Your task to perform on an android device: Open the stopwatch Image 0: 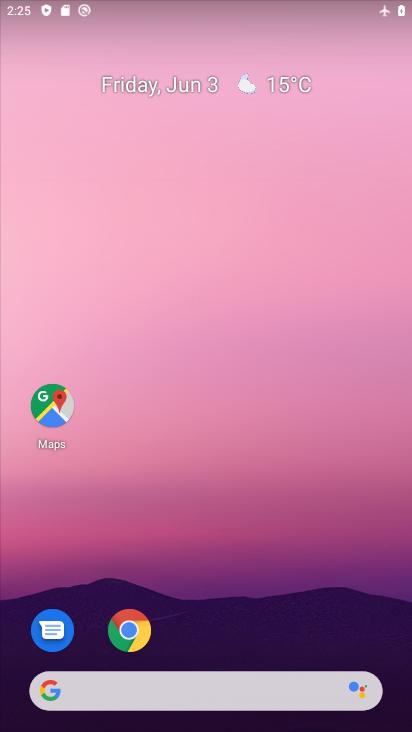
Step 0: drag from (245, 604) to (332, 120)
Your task to perform on an android device: Open the stopwatch Image 1: 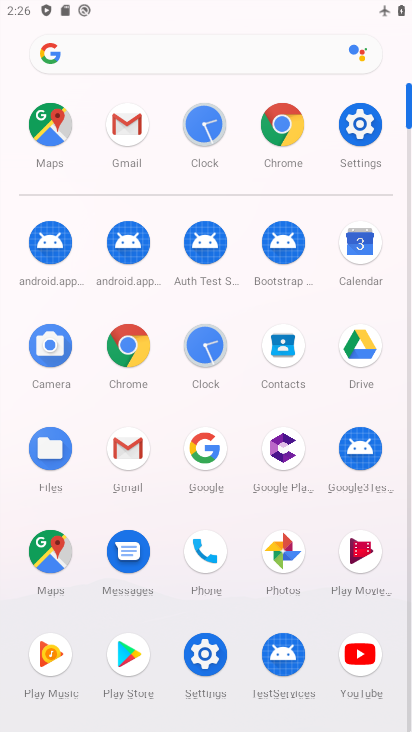
Step 1: click (197, 383)
Your task to perform on an android device: Open the stopwatch Image 2: 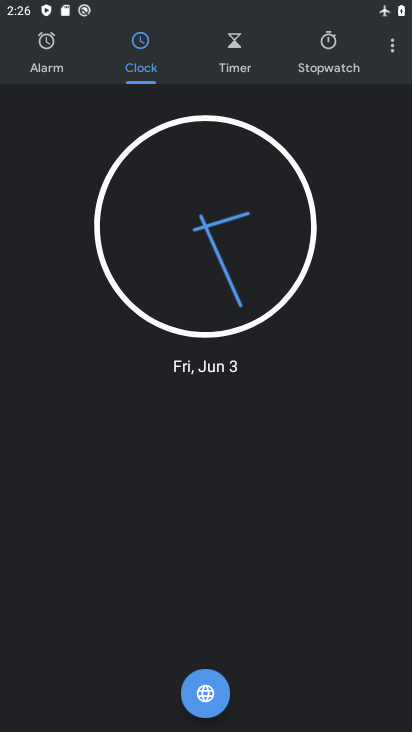
Step 2: click (326, 46)
Your task to perform on an android device: Open the stopwatch Image 3: 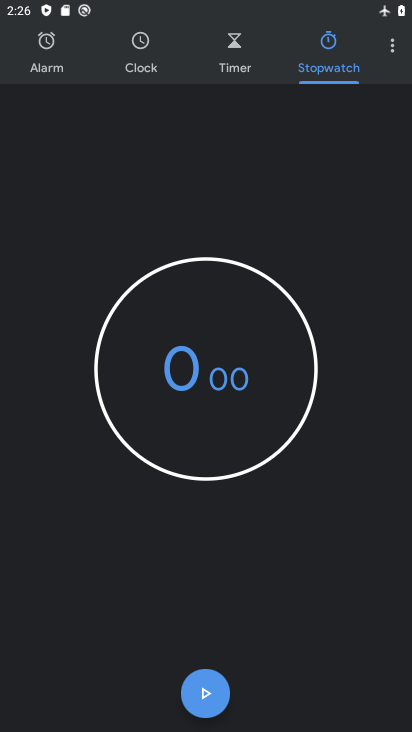
Step 3: task complete